Your task to perform on an android device: change the clock display to digital Image 0: 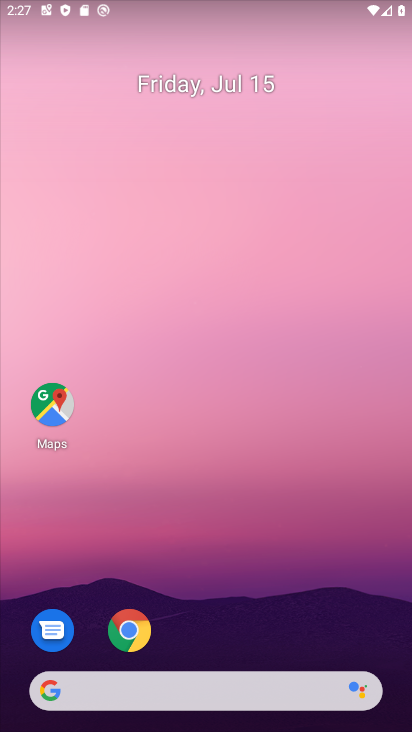
Step 0: drag from (211, 546) to (198, 103)
Your task to perform on an android device: change the clock display to digital Image 1: 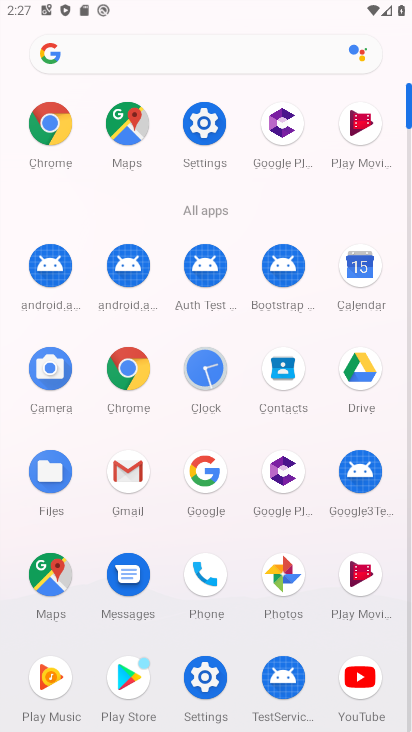
Step 1: click (208, 376)
Your task to perform on an android device: change the clock display to digital Image 2: 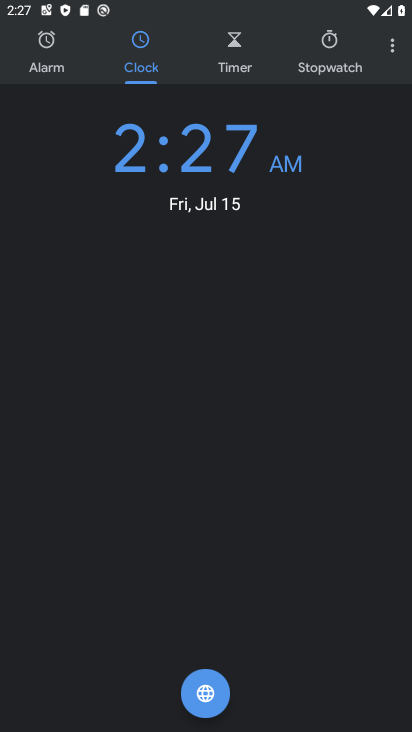
Step 2: click (396, 46)
Your task to perform on an android device: change the clock display to digital Image 3: 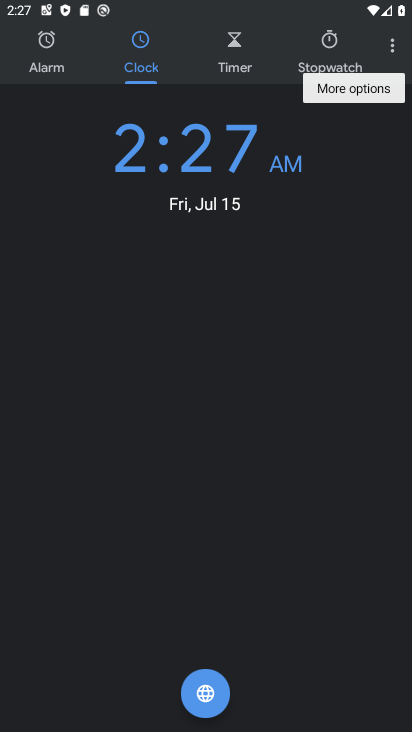
Step 3: click (387, 45)
Your task to perform on an android device: change the clock display to digital Image 4: 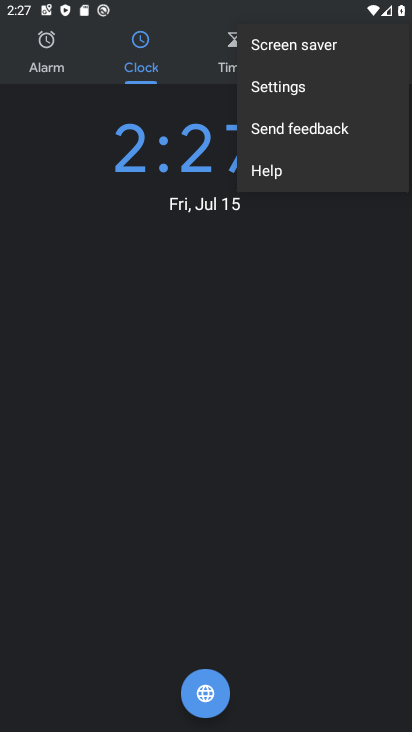
Step 4: click (272, 90)
Your task to perform on an android device: change the clock display to digital Image 5: 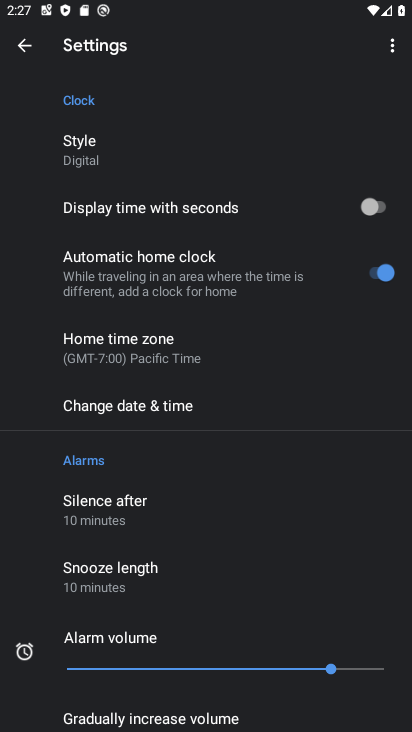
Step 5: click (91, 160)
Your task to perform on an android device: change the clock display to digital Image 6: 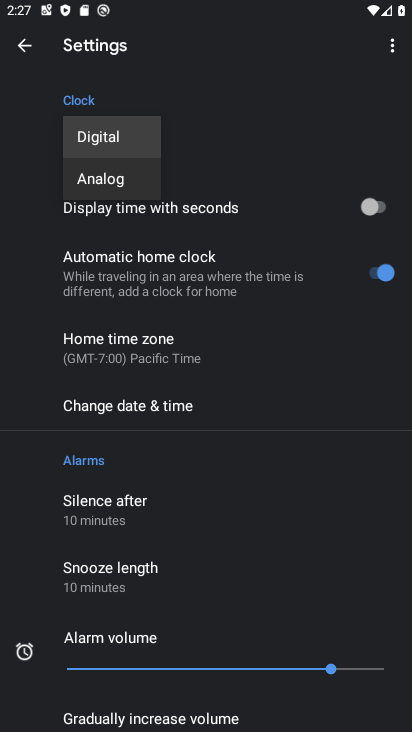
Step 6: task complete